Your task to perform on an android device: change the clock display to analog Image 0: 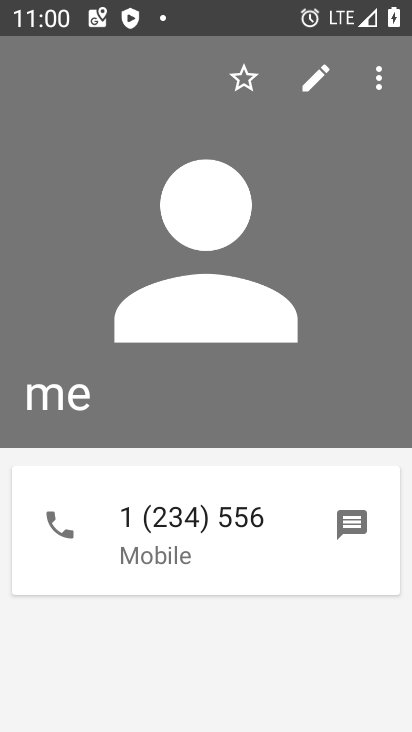
Step 0: press home button
Your task to perform on an android device: change the clock display to analog Image 1: 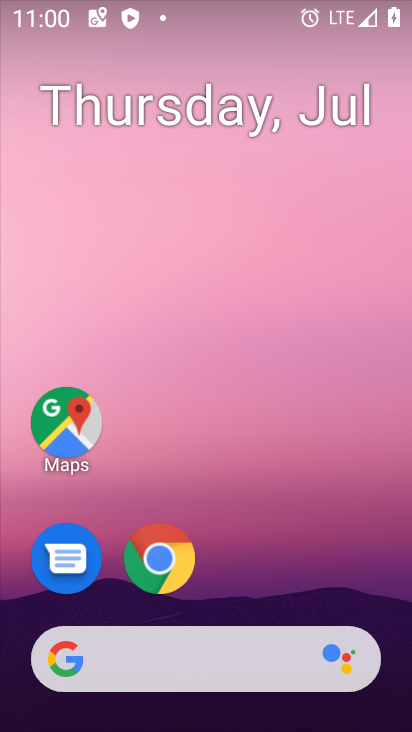
Step 1: drag from (341, 585) to (364, 60)
Your task to perform on an android device: change the clock display to analog Image 2: 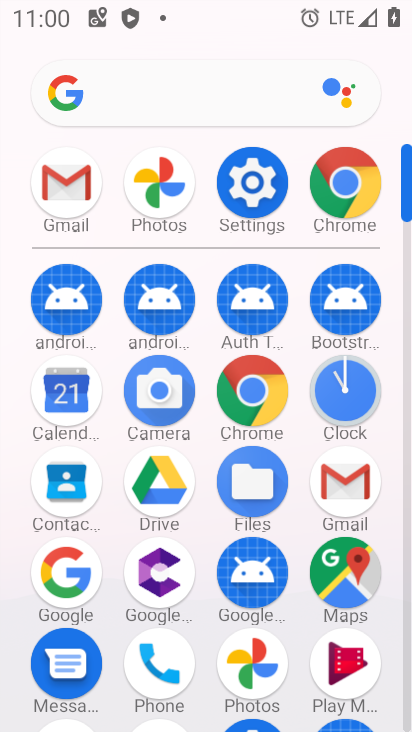
Step 2: click (355, 384)
Your task to perform on an android device: change the clock display to analog Image 3: 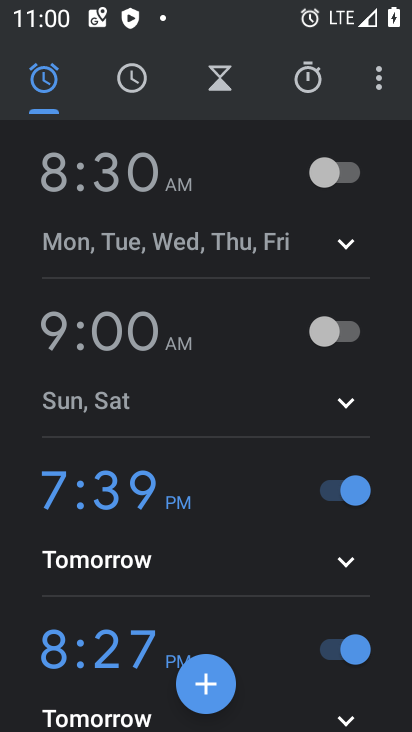
Step 3: click (379, 94)
Your task to perform on an android device: change the clock display to analog Image 4: 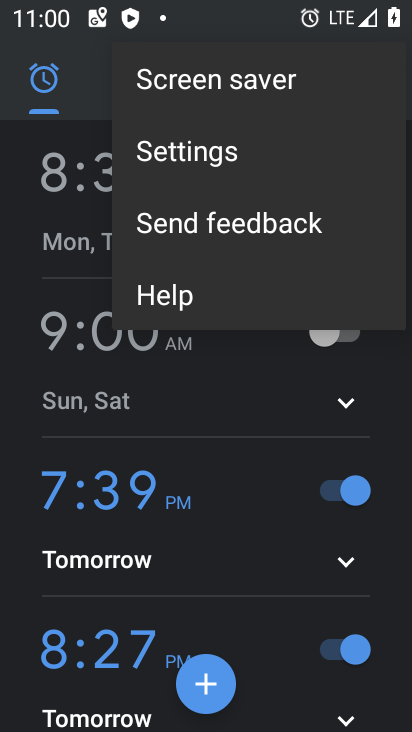
Step 4: click (272, 162)
Your task to perform on an android device: change the clock display to analog Image 5: 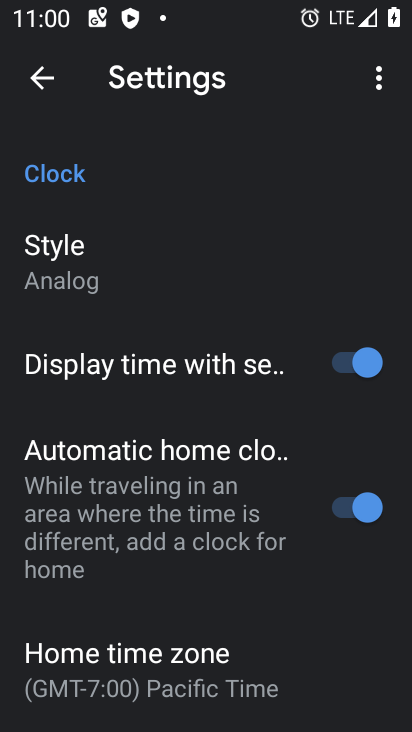
Step 5: task complete